Your task to perform on an android device: open chrome and create a bookmark for the current page Image 0: 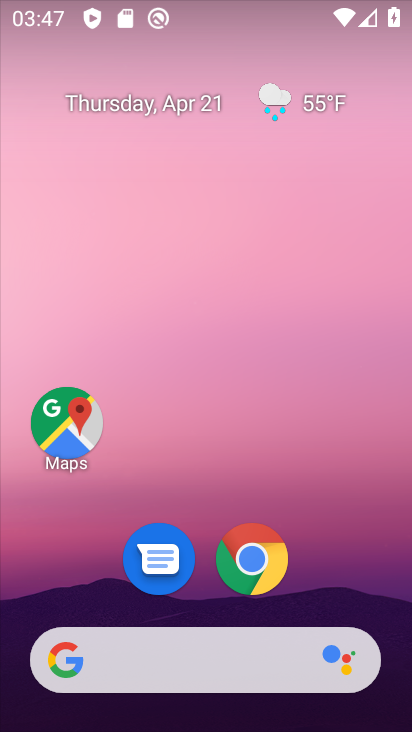
Step 0: click (249, 540)
Your task to perform on an android device: open chrome and create a bookmark for the current page Image 1: 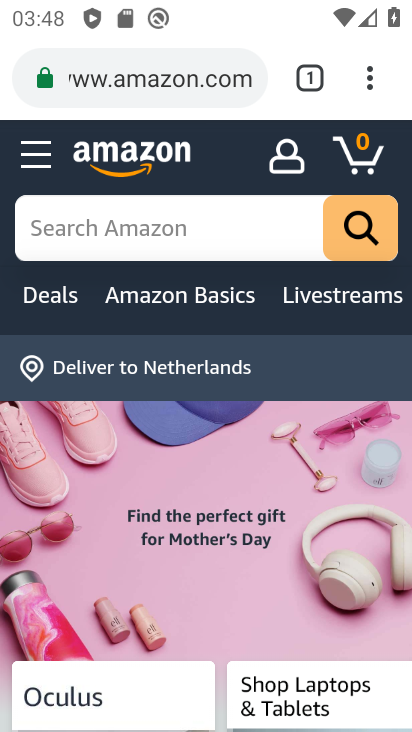
Step 1: click (381, 87)
Your task to perform on an android device: open chrome and create a bookmark for the current page Image 2: 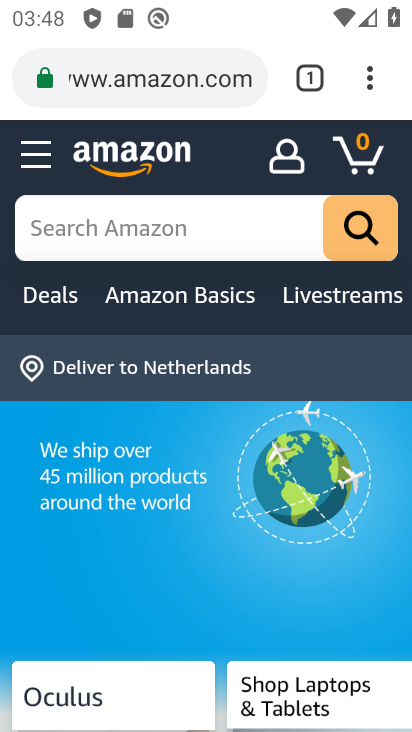
Step 2: click (369, 86)
Your task to perform on an android device: open chrome and create a bookmark for the current page Image 3: 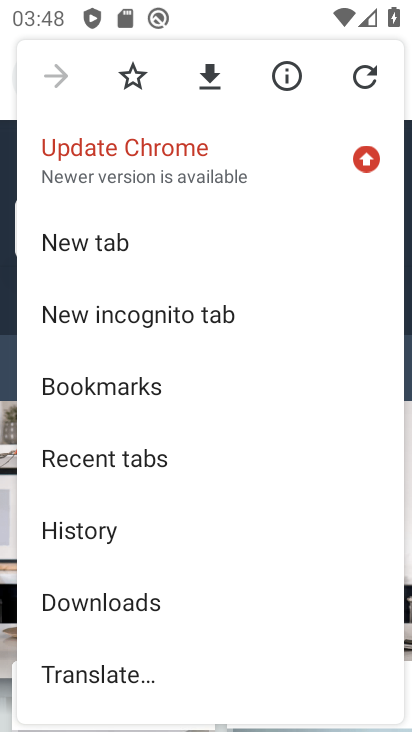
Step 3: click (133, 73)
Your task to perform on an android device: open chrome and create a bookmark for the current page Image 4: 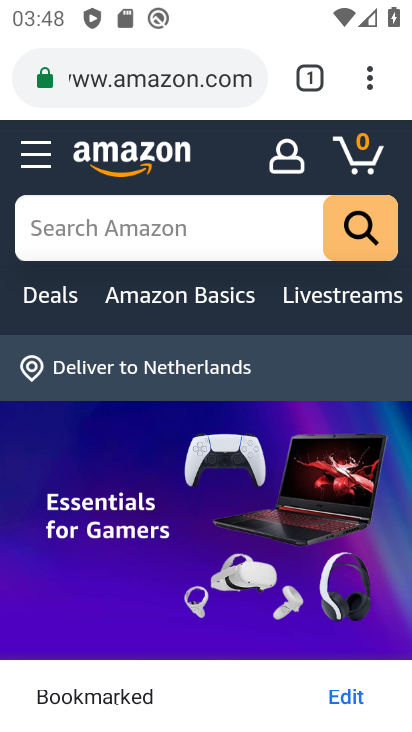
Step 4: task complete